Your task to perform on an android device: check out phone information Image 0: 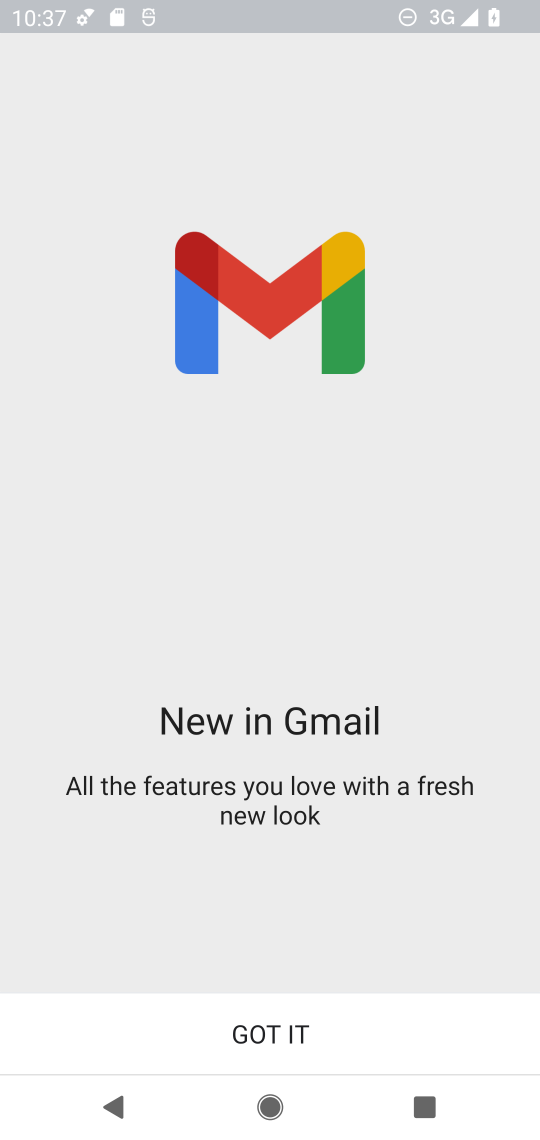
Step 0: press home button
Your task to perform on an android device: check out phone information Image 1: 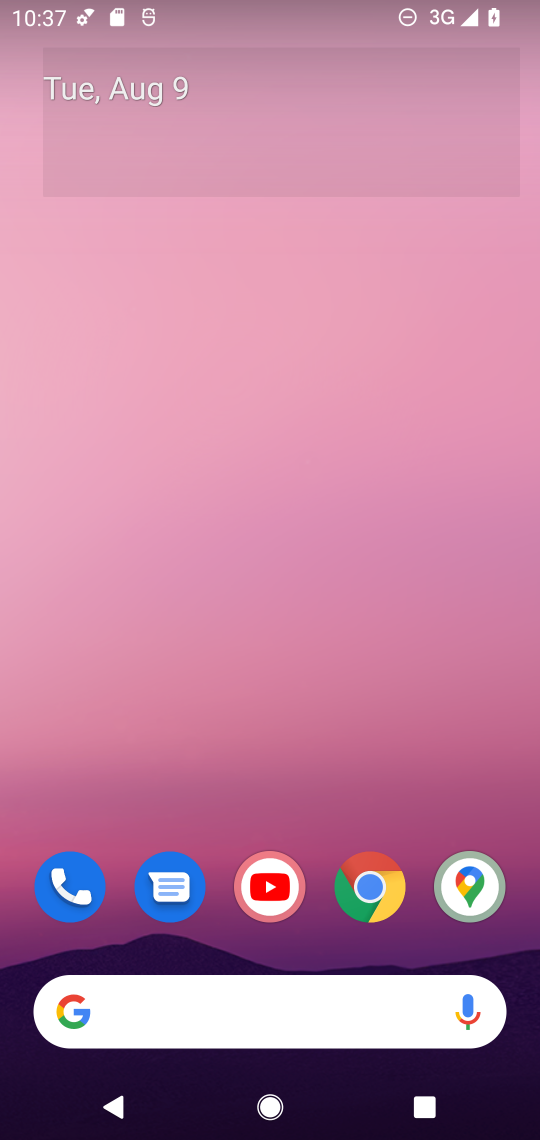
Step 1: drag from (303, 819) to (303, 228)
Your task to perform on an android device: check out phone information Image 2: 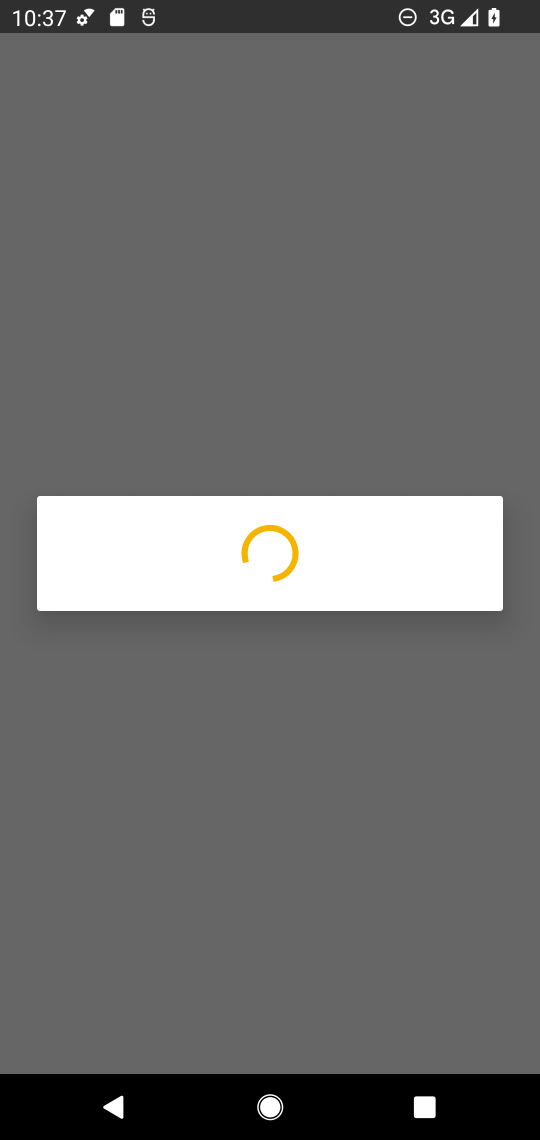
Step 2: press home button
Your task to perform on an android device: check out phone information Image 3: 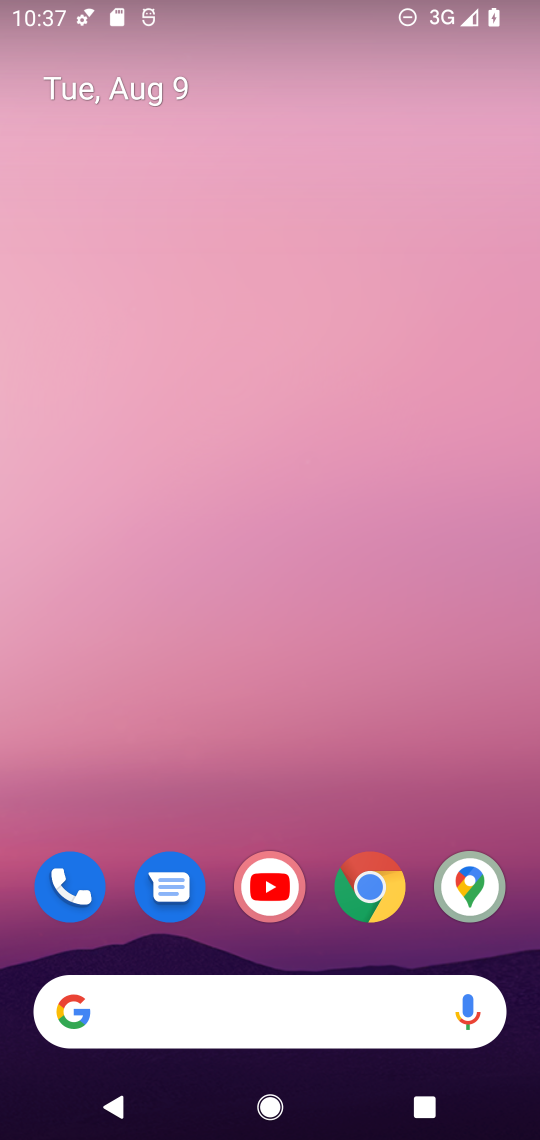
Step 3: drag from (333, 623) to (367, 5)
Your task to perform on an android device: check out phone information Image 4: 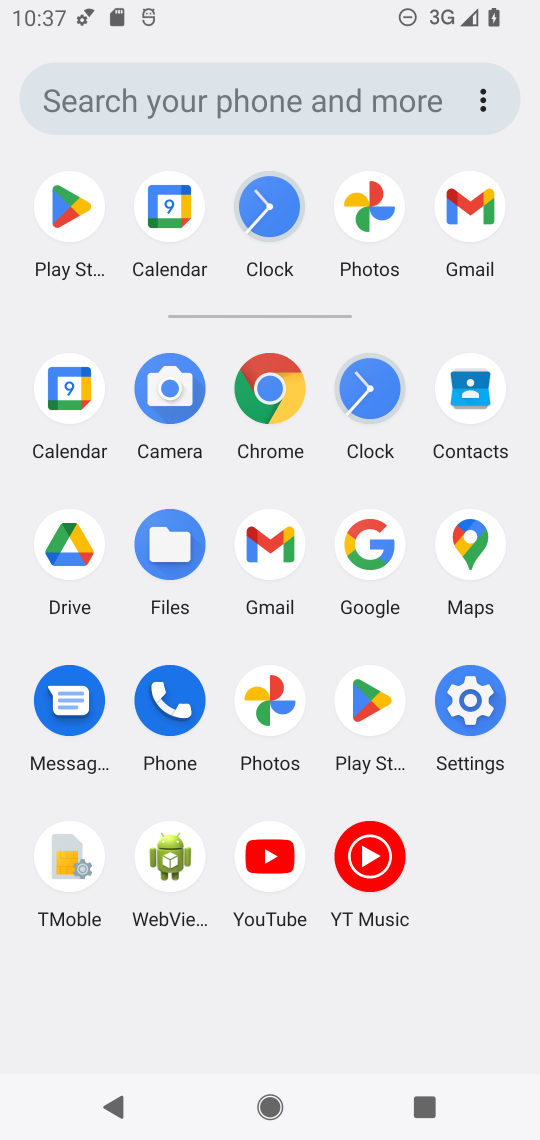
Step 4: click (465, 674)
Your task to perform on an android device: check out phone information Image 5: 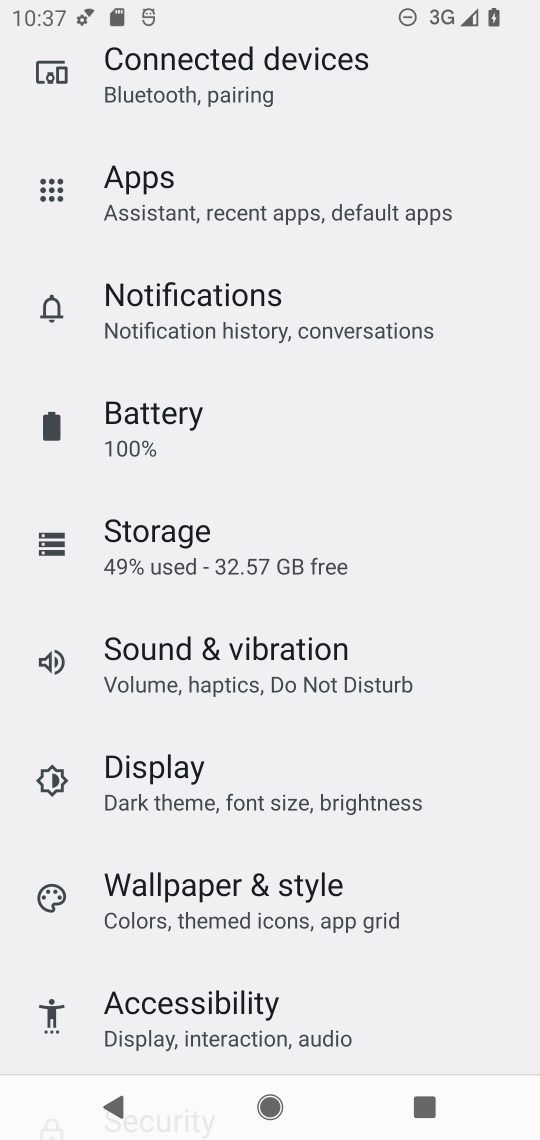
Step 5: drag from (309, 975) to (309, 156)
Your task to perform on an android device: check out phone information Image 6: 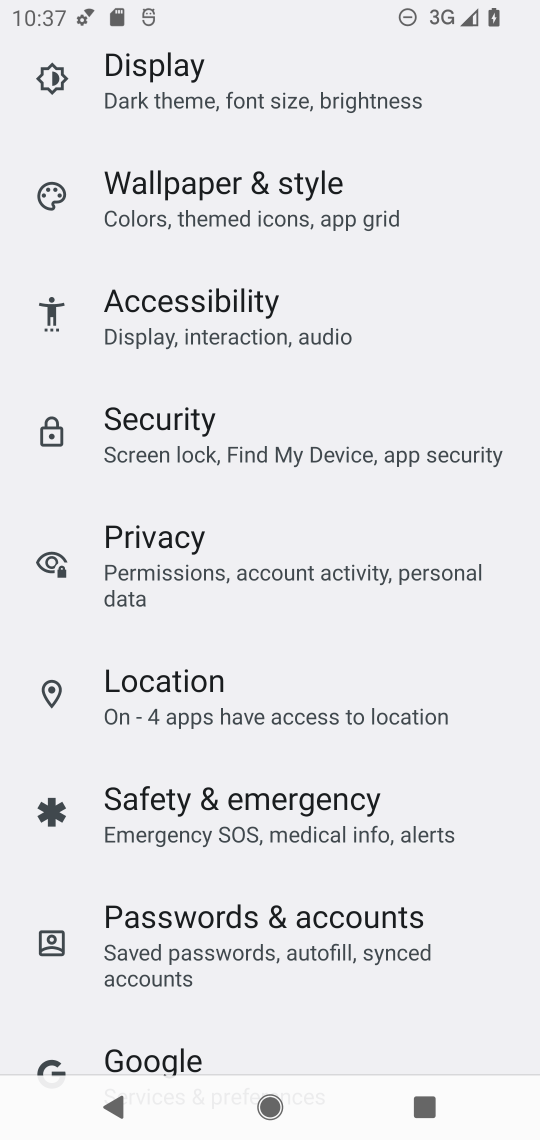
Step 6: drag from (241, 957) to (258, 205)
Your task to perform on an android device: check out phone information Image 7: 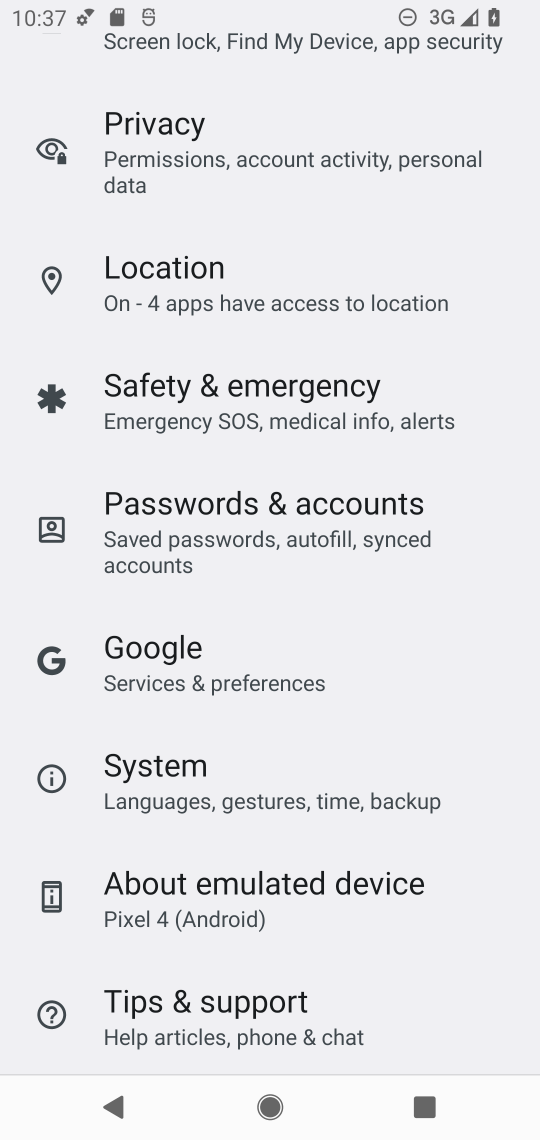
Step 7: drag from (228, 927) to (210, 316)
Your task to perform on an android device: check out phone information Image 8: 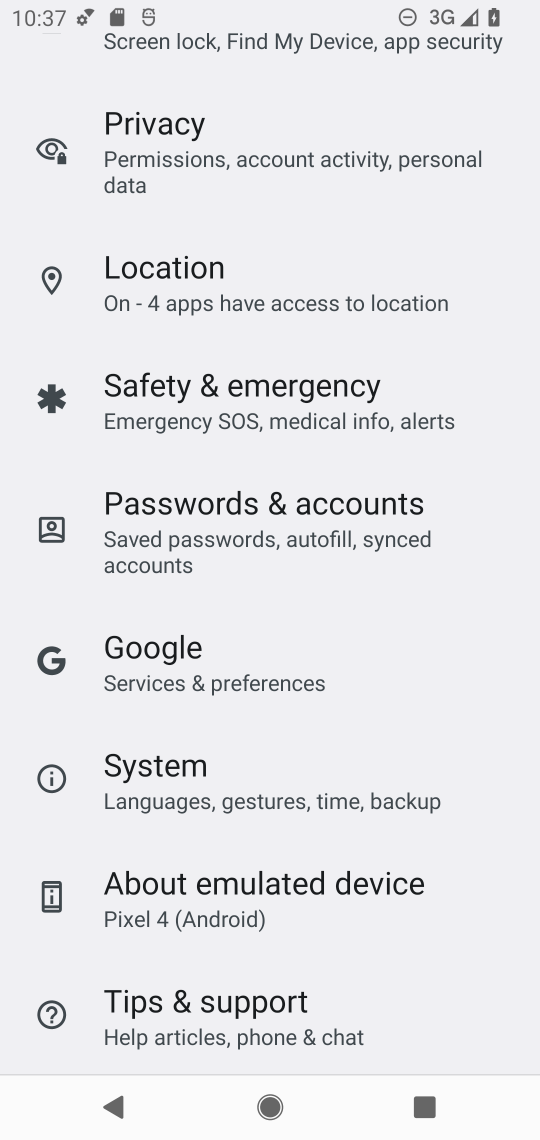
Step 8: drag from (235, 953) to (224, 340)
Your task to perform on an android device: check out phone information Image 9: 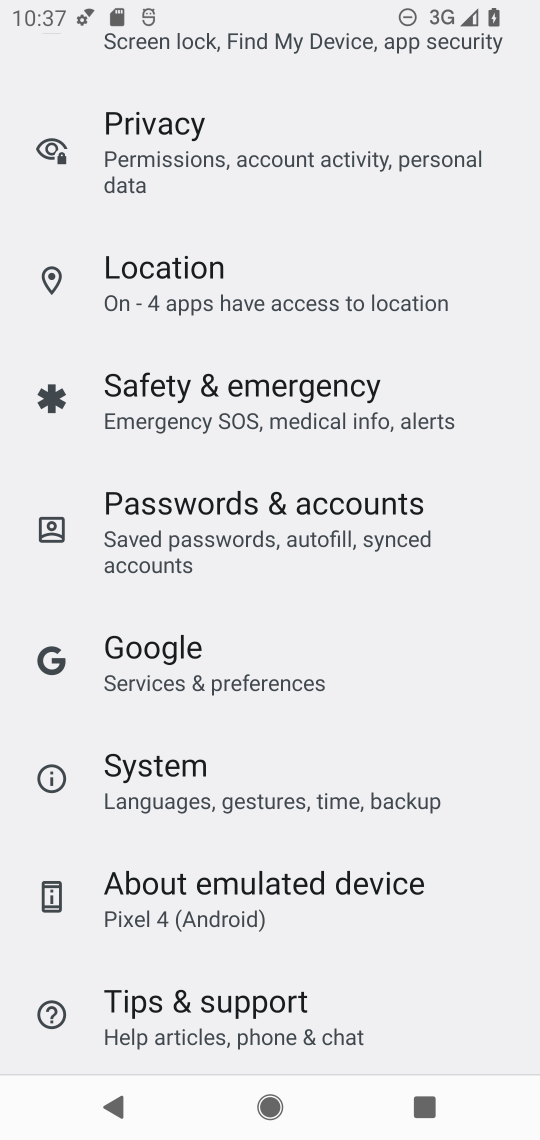
Step 9: drag from (241, 948) to (243, 319)
Your task to perform on an android device: check out phone information Image 10: 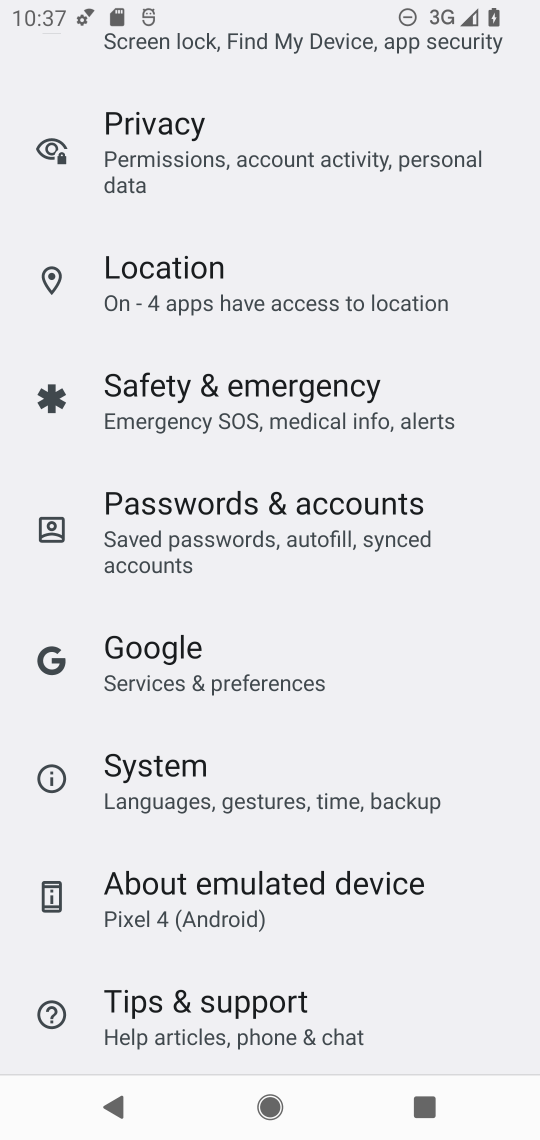
Step 10: click (225, 896)
Your task to perform on an android device: check out phone information Image 11: 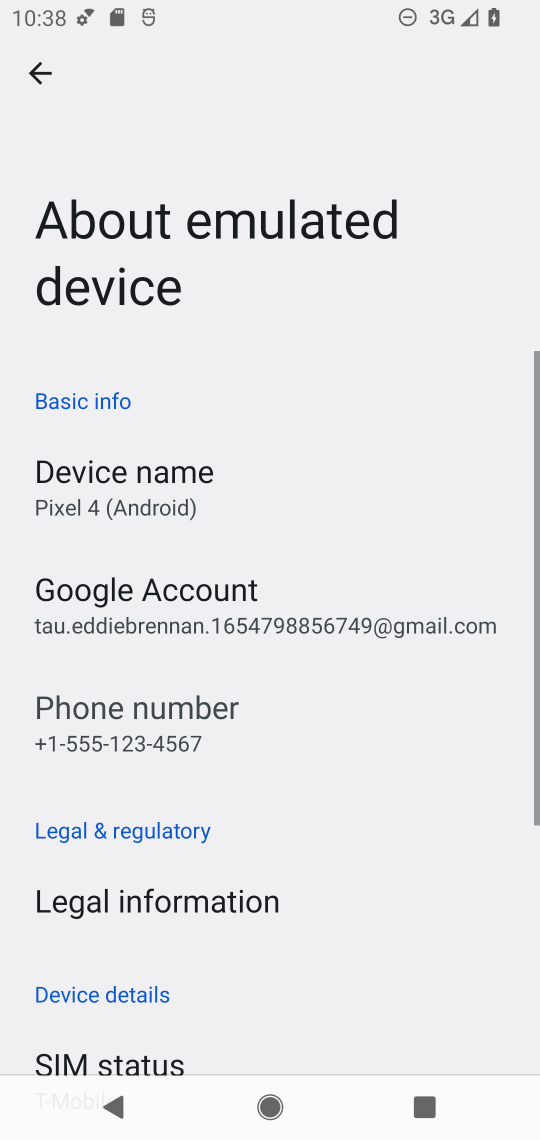
Step 11: task complete